Your task to perform on an android device: open device folders in google photos Image 0: 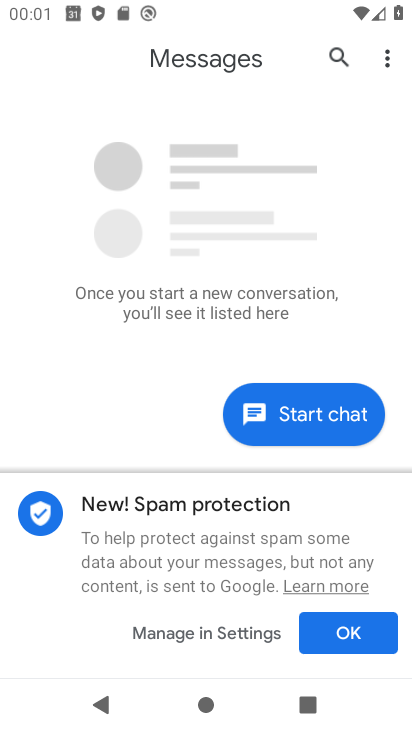
Step 0: press home button
Your task to perform on an android device: open device folders in google photos Image 1: 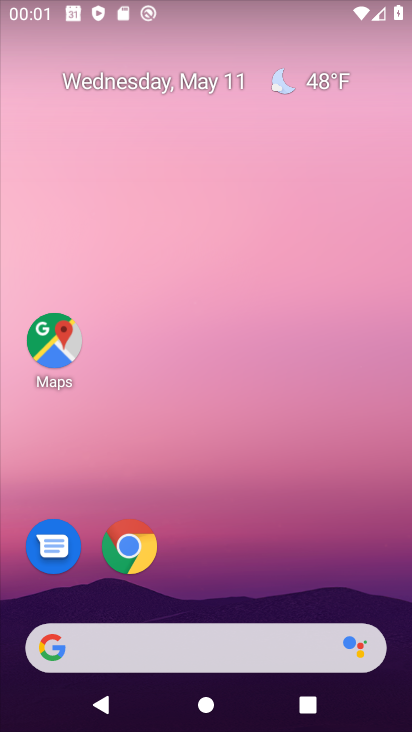
Step 1: drag from (267, 573) to (267, 135)
Your task to perform on an android device: open device folders in google photos Image 2: 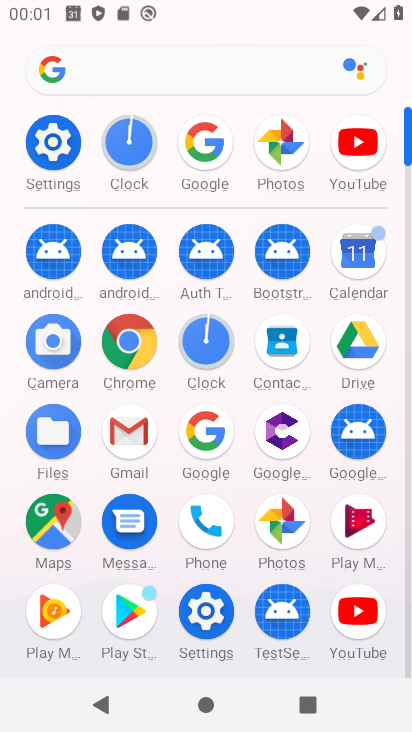
Step 2: click (290, 163)
Your task to perform on an android device: open device folders in google photos Image 3: 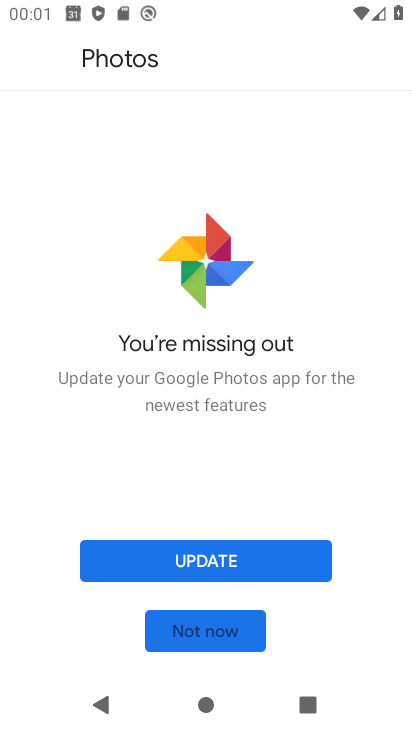
Step 3: click (218, 627)
Your task to perform on an android device: open device folders in google photos Image 4: 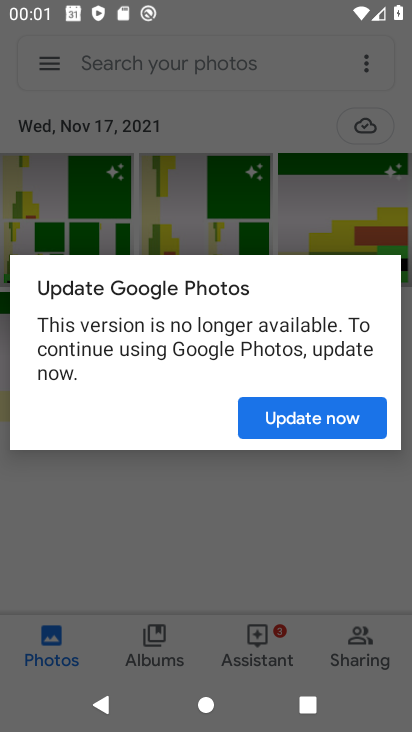
Step 4: click (275, 407)
Your task to perform on an android device: open device folders in google photos Image 5: 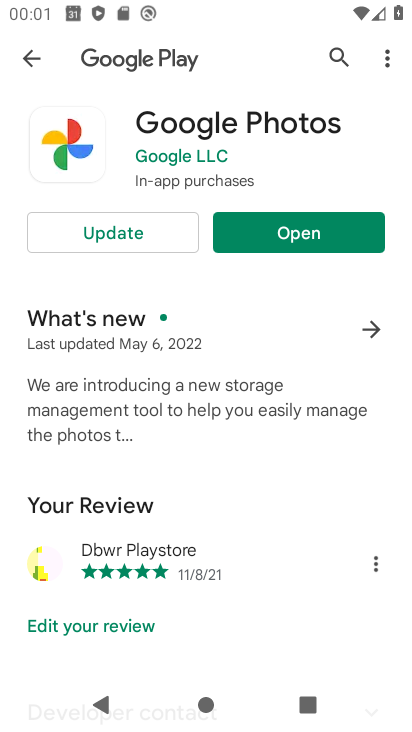
Step 5: click (244, 246)
Your task to perform on an android device: open device folders in google photos Image 6: 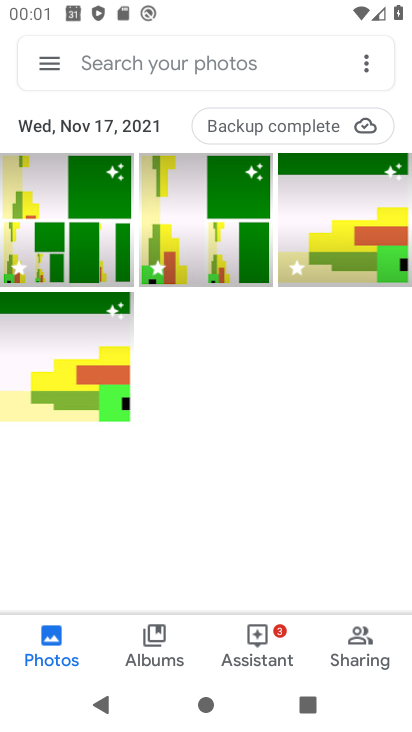
Step 6: click (62, 72)
Your task to perform on an android device: open device folders in google photos Image 7: 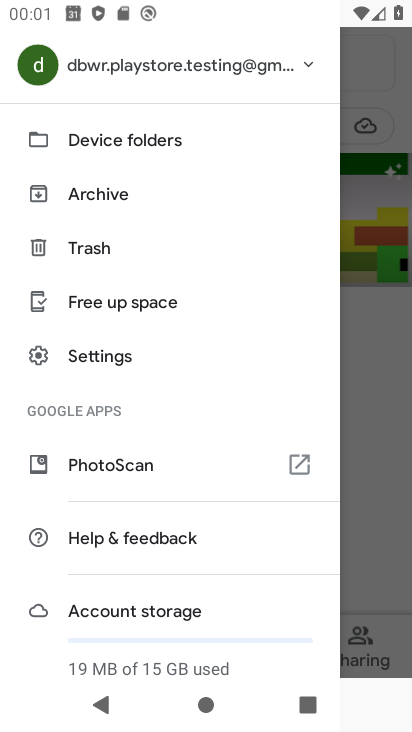
Step 7: click (144, 146)
Your task to perform on an android device: open device folders in google photos Image 8: 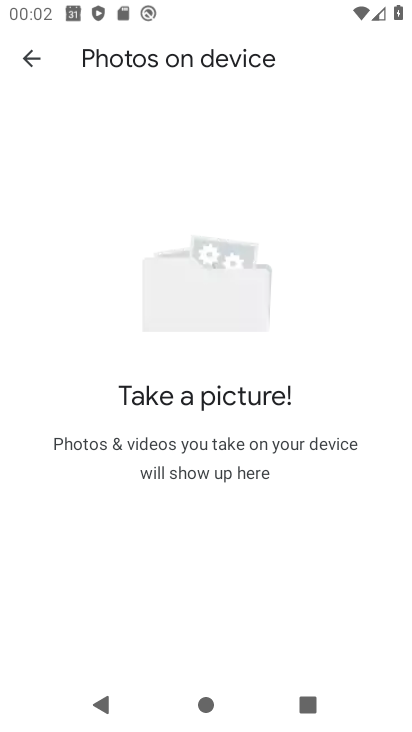
Step 8: task complete